Your task to perform on an android device: turn off data saver in the chrome app Image 0: 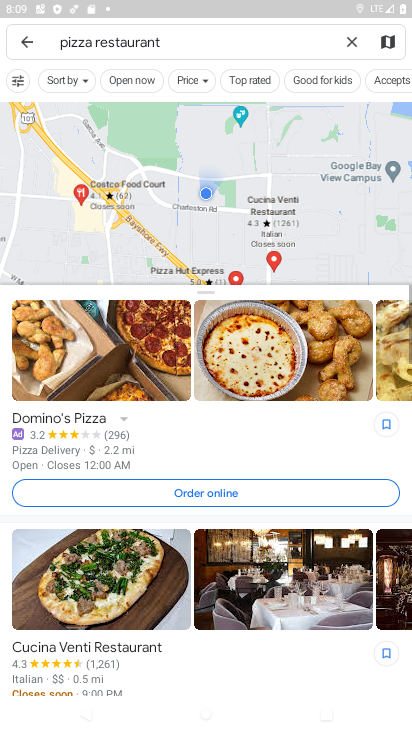
Step 0: press home button
Your task to perform on an android device: turn off data saver in the chrome app Image 1: 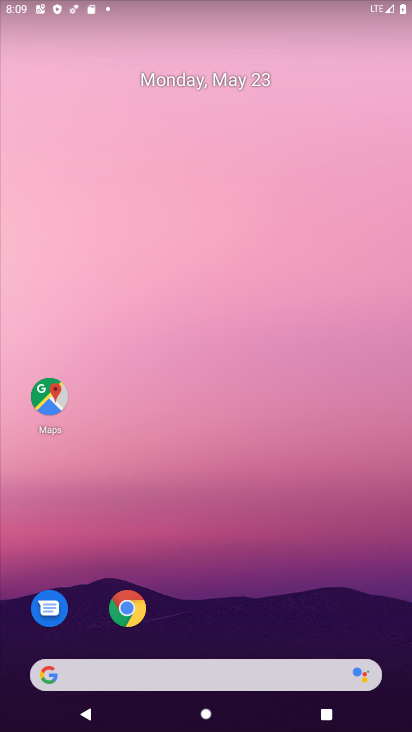
Step 1: drag from (170, 661) to (157, 241)
Your task to perform on an android device: turn off data saver in the chrome app Image 2: 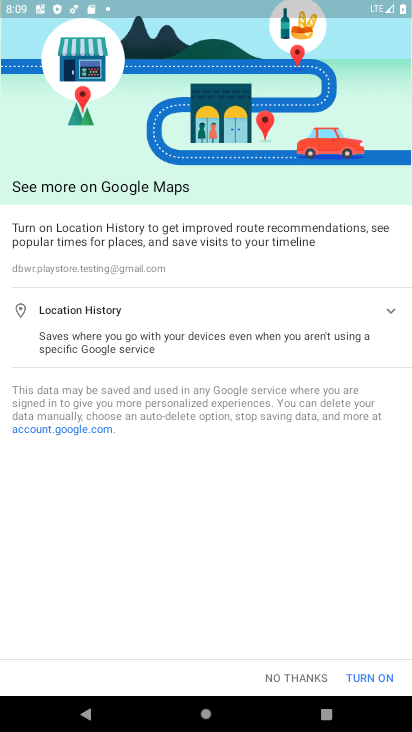
Step 2: press home button
Your task to perform on an android device: turn off data saver in the chrome app Image 3: 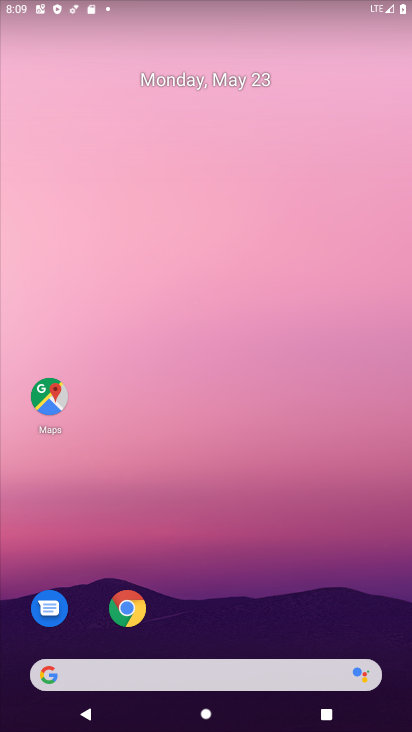
Step 3: click (141, 609)
Your task to perform on an android device: turn off data saver in the chrome app Image 4: 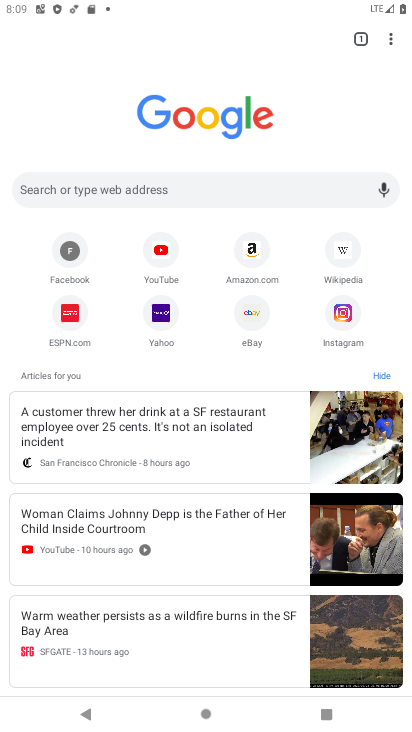
Step 4: drag from (388, 31) to (295, 330)
Your task to perform on an android device: turn off data saver in the chrome app Image 5: 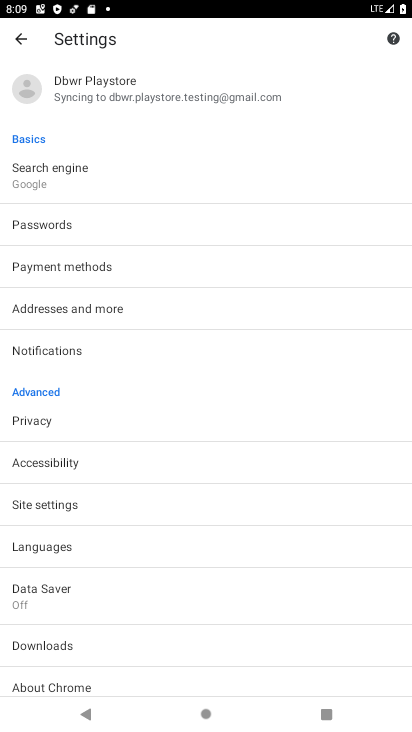
Step 5: click (123, 591)
Your task to perform on an android device: turn off data saver in the chrome app Image 6: 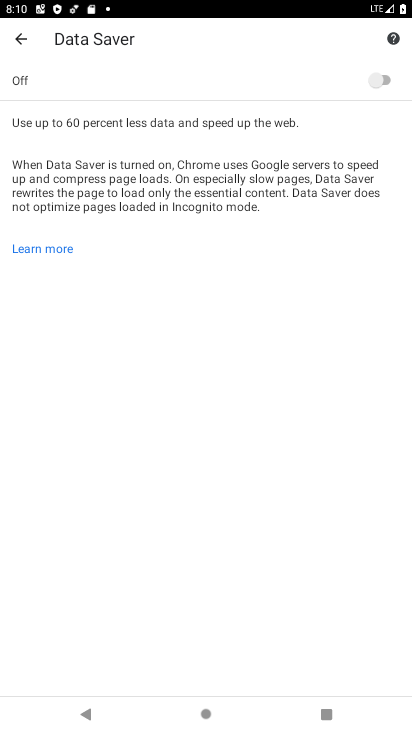
Step 6: task complete